Your task to perform on an android device: toggle translation in the chrome app Image 0: 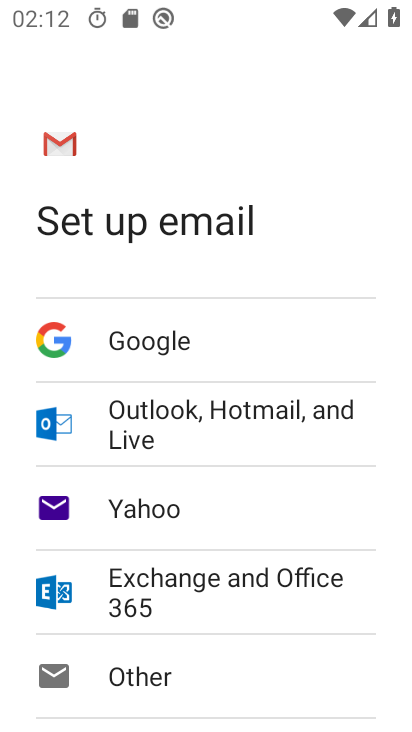
Step 0: press home button
Your task to perform on an android device: toggle translation in the chrome app Image 1: 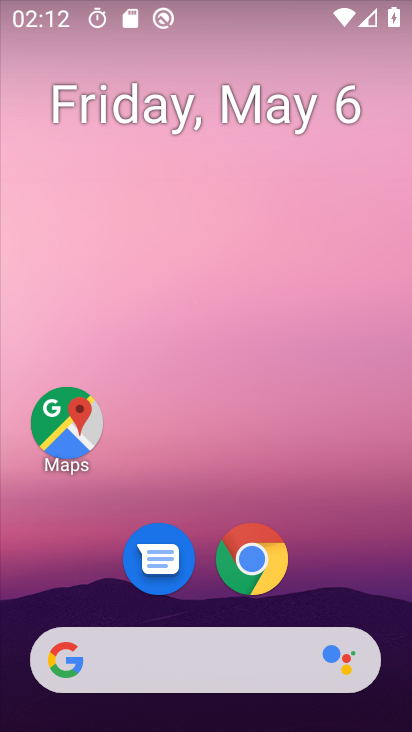
Step 1: drag from (236, 620) to (250, 57)
Your task to perform on an android device: toggle translation in the chrome app Image 2: 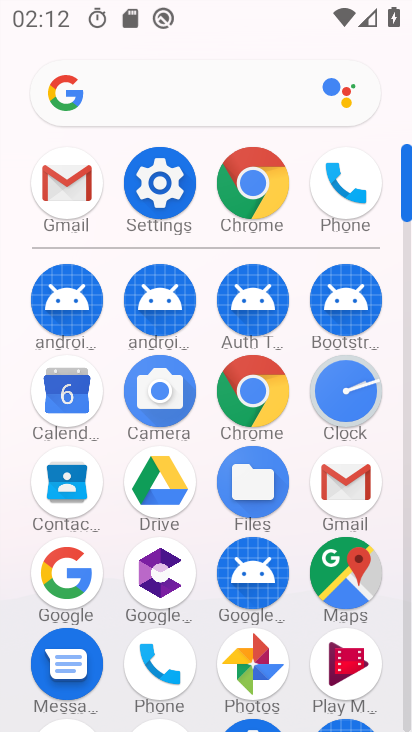
Step 2: click (249, 397)
Your task to perform on an android device: toggle translation in the chrome app Image 3: 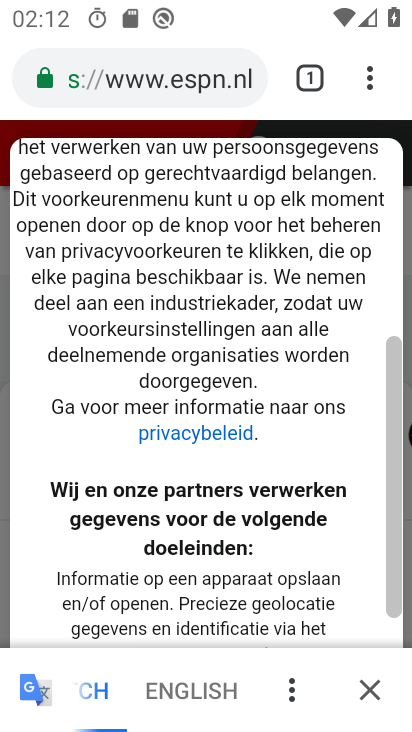
Step 3: drag from (367, 70) to (138, 622)
Your task to perform on an android device: toggle translation in the chrome app Image 4: 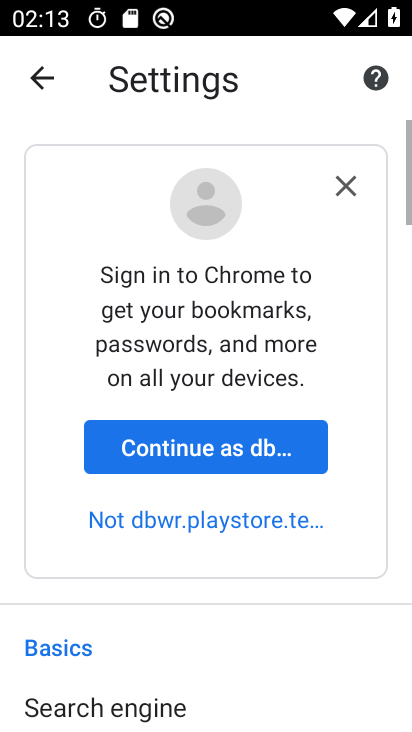
Step 4: drag from (266, 655) to (261, 7)
Your task to perform on an android device: toggle translation in the chrome app Image 5: 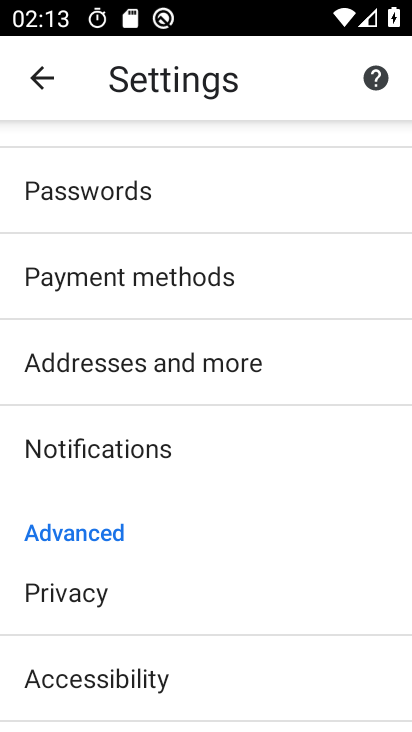
Step 5: drag from (248, 583) to (270, 275)
Your task to perform on an android device: toggle translation in the chrome app Image 6: 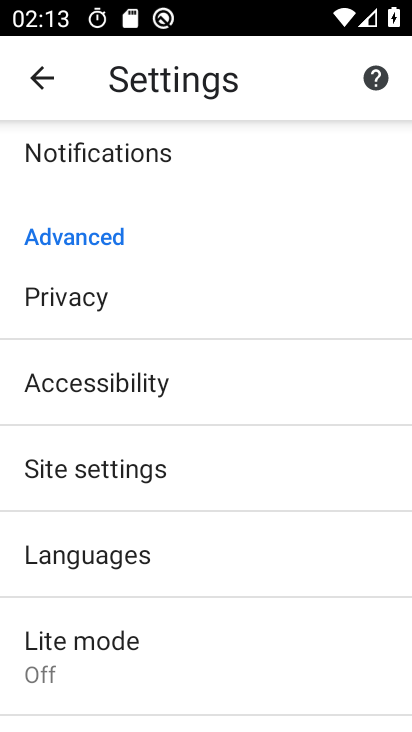
Step 6: click (160, 637)
Your task to perform on an android device: toggle translation in the chrome app Image 7: 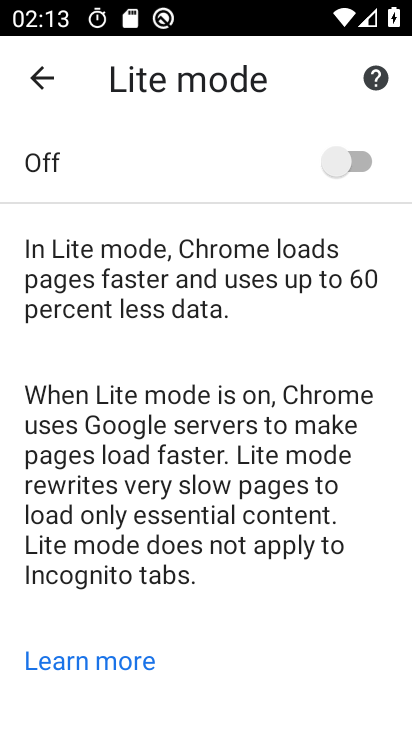
Step 7: drag from (235, 629) to (265, 220)
Your task to perform on an android device: toggle translation in the chrome app Image 8: 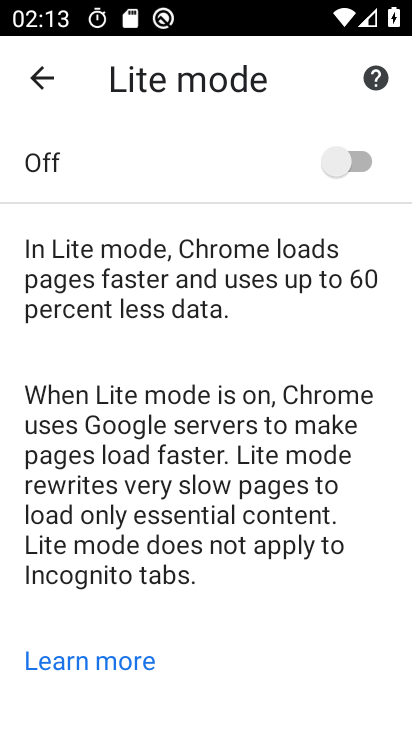
Step 8: drag from (162, 622) to (218, 235)
Your task to perform on an android device: toggle translation in the chrome app Image 9: 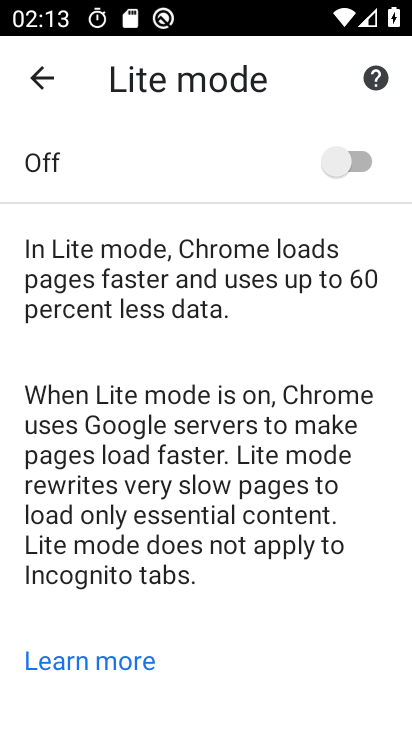
Step 9: press back button
Your task to perform on an android device: toggle translation in the chrome app Image 10: 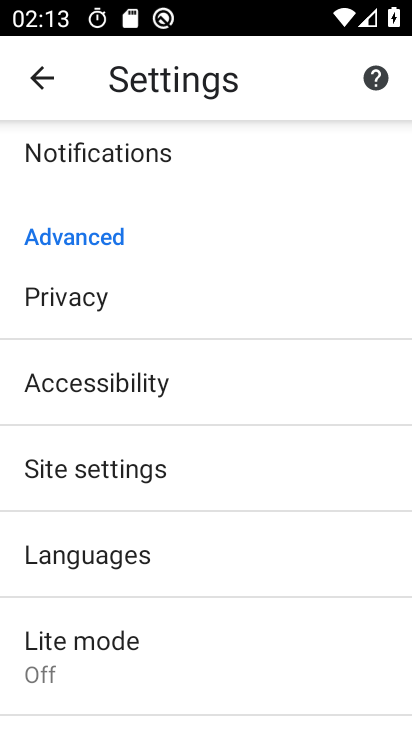
Step 10: click (136, 567)
Your task to perform on an android device: toggle translation in the chrome app Image 11: 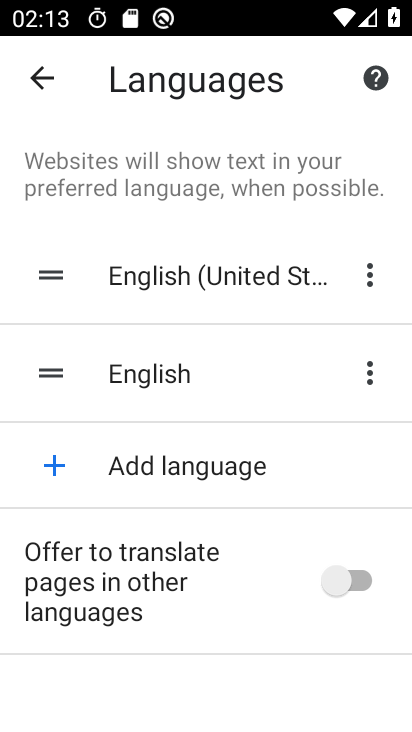
Step 11: click (357, 583)
Your task to perform on an android device: toggle translation in the chrome app Image 12: 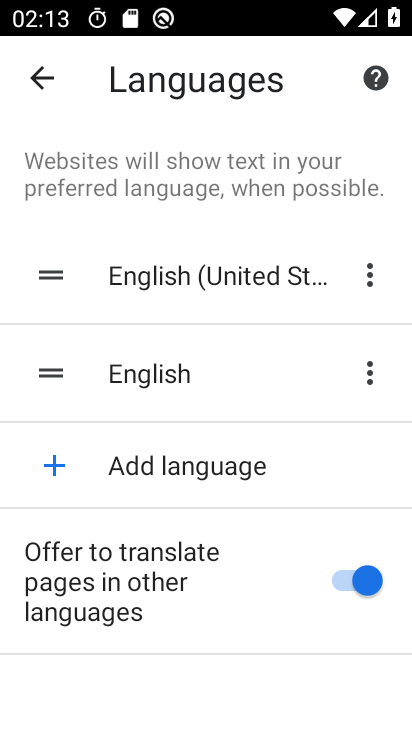
Step 12: task complete